Your task to perform on an android device: open a bookmark in the chrome app Image 0: 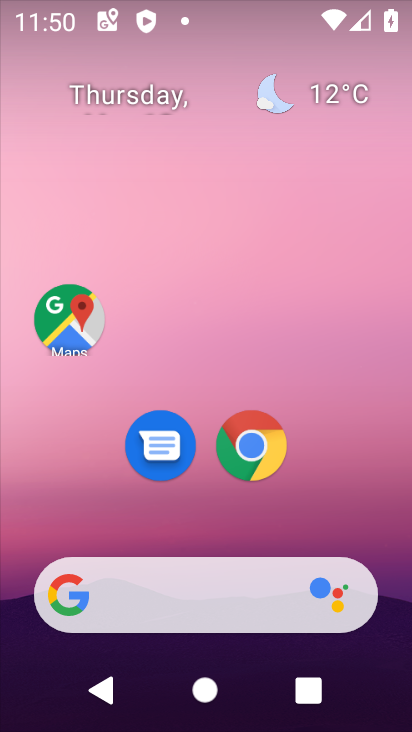
Step 0: click (267, 464)
Your task to perform on an android device: open a bookmark in the chrome app Image 1: 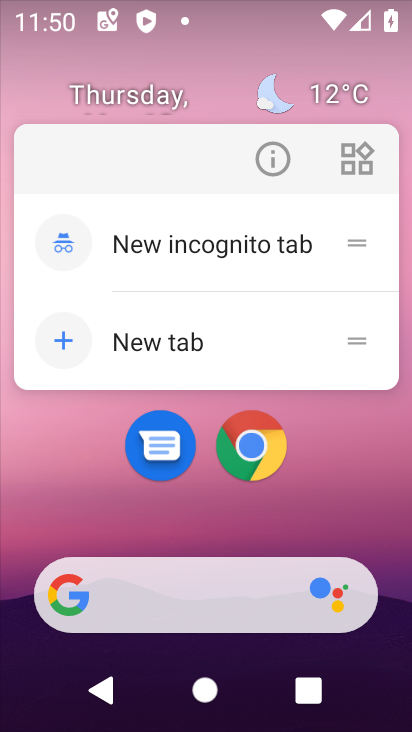
Step 1: click (244, 458)
Your task to perform on an android device: open a bookmark in the chrome app Image 2: 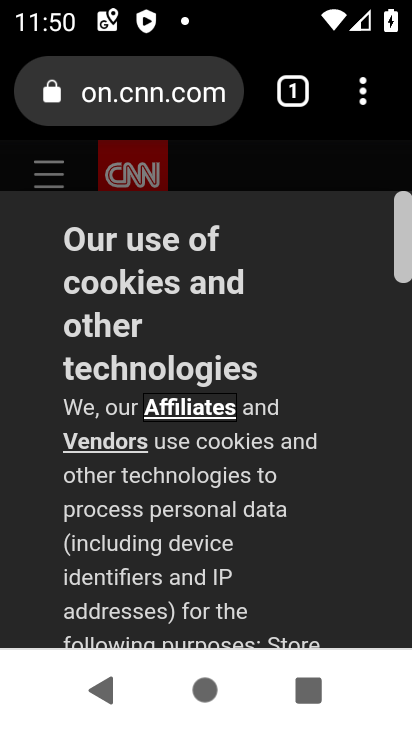
Step 2: task complete